Your task to perform on an android device: What's the weather today? Image 0: 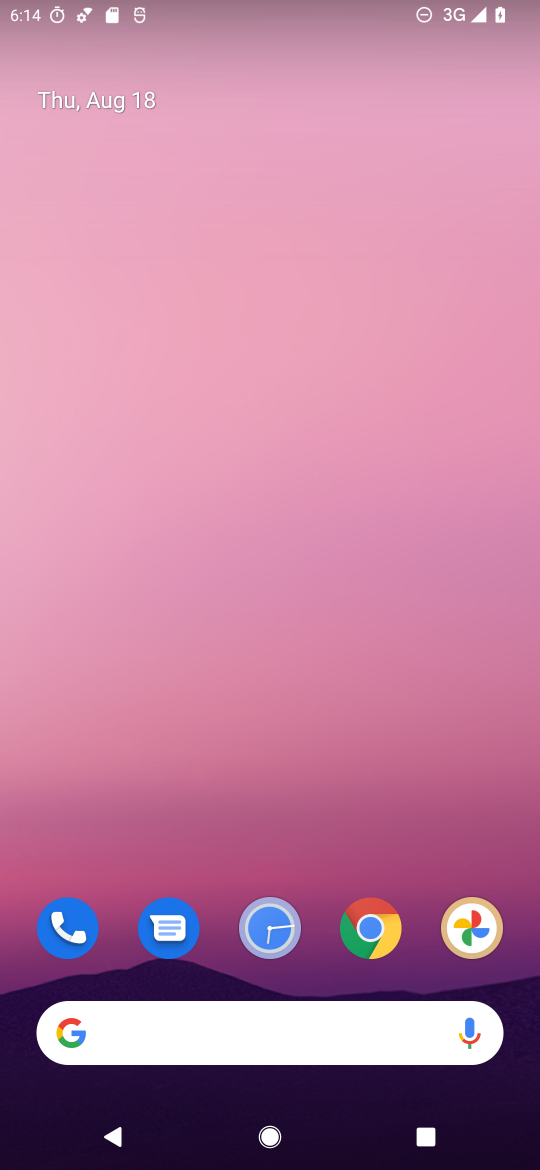
Step 0: drag from (320, 740) to (367, 123)
Your task to perform on an android device: What's the weather today? Image 1: 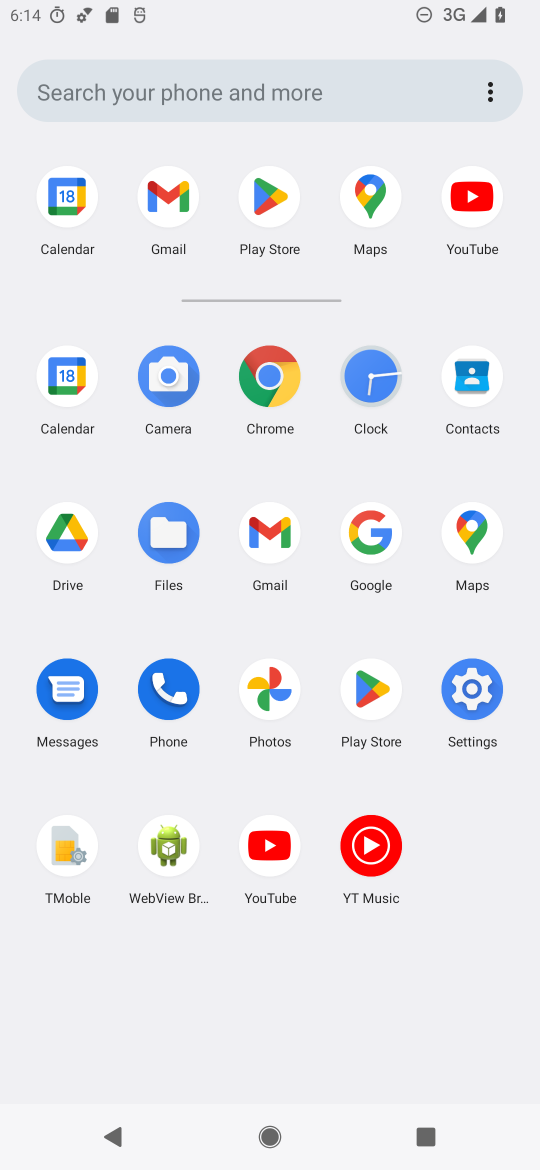
Step 1: click (278, 374)
Your task to perform on an android device: What's the weather today? Image 2: 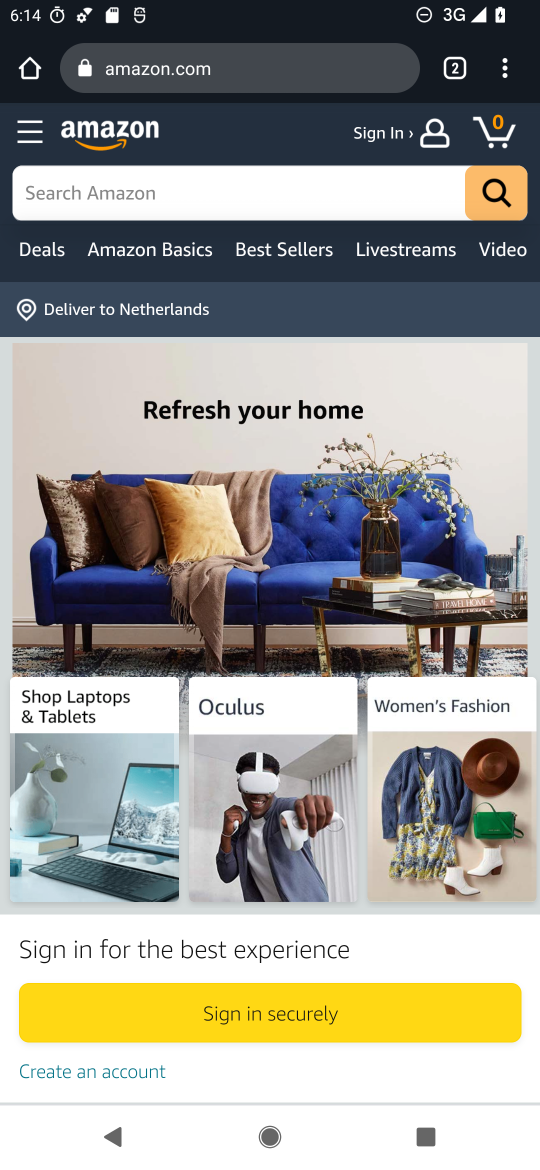
Step 2: click (284, 80)
Your task to perform on an android device: What's the weather today? Image 3: 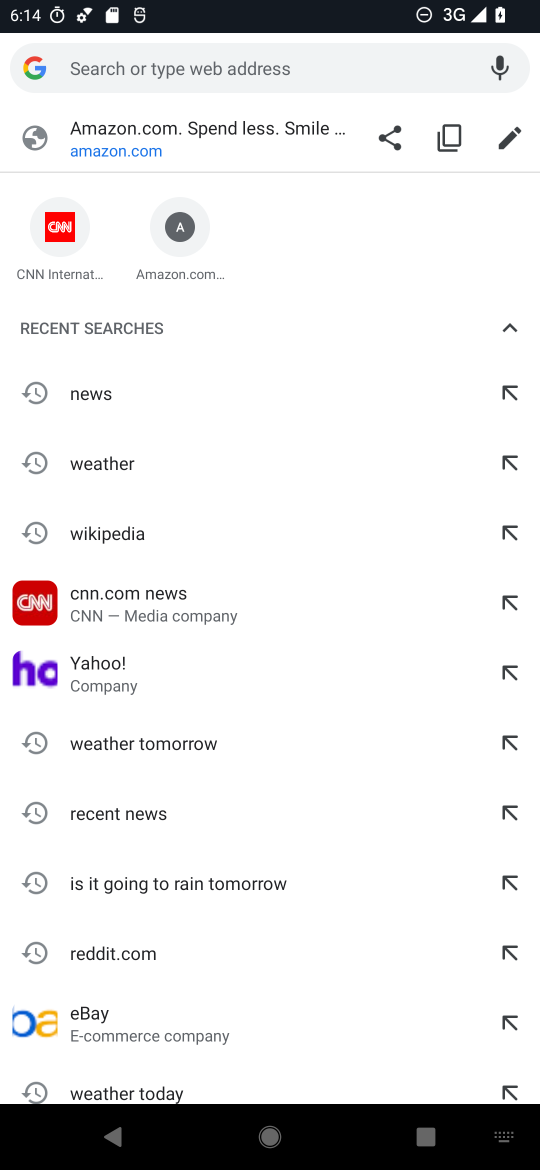
Step 3: type "weather"
Your task to perform on an android device: What's the weather today? Image 4: 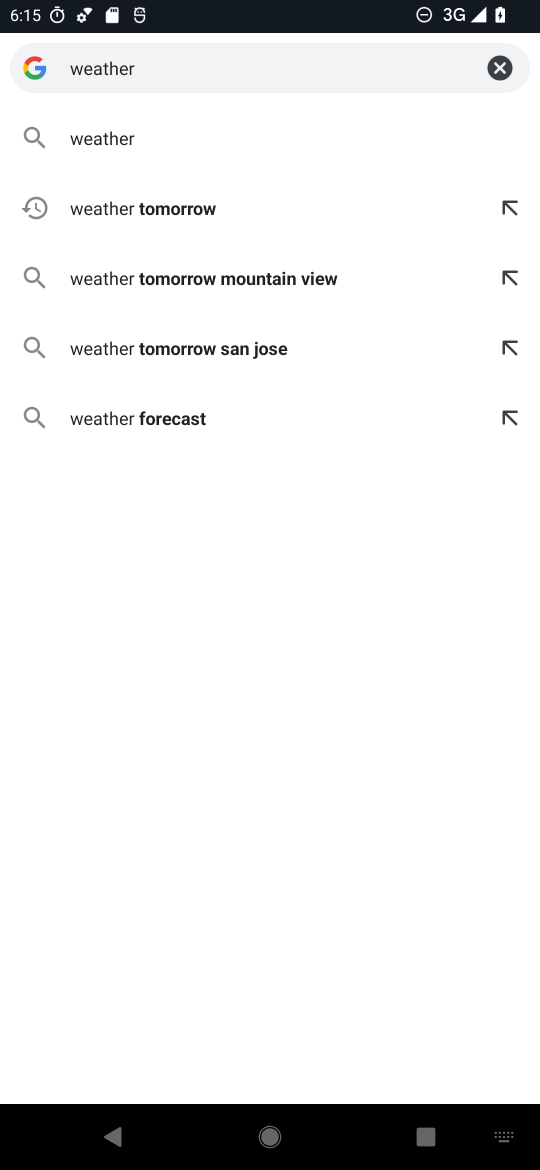
Step 4: click (122, 150)
Your task to perform on an android device: What's the weather today? Image 5: 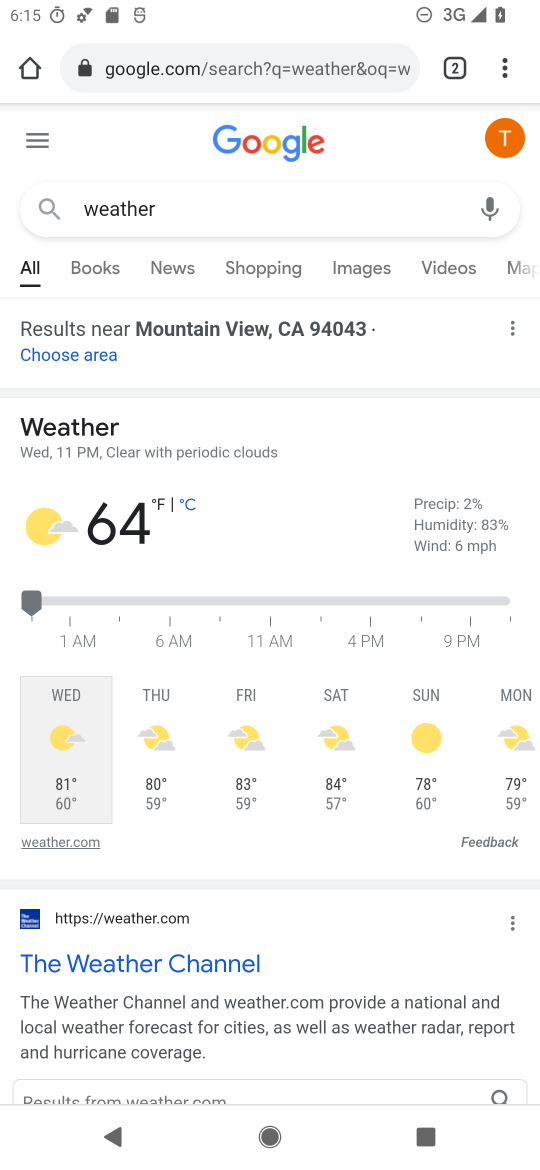
Step 5: task complete